Your task to perform on an android device: read, delete, or share a saved page in the chrome app Image 0: 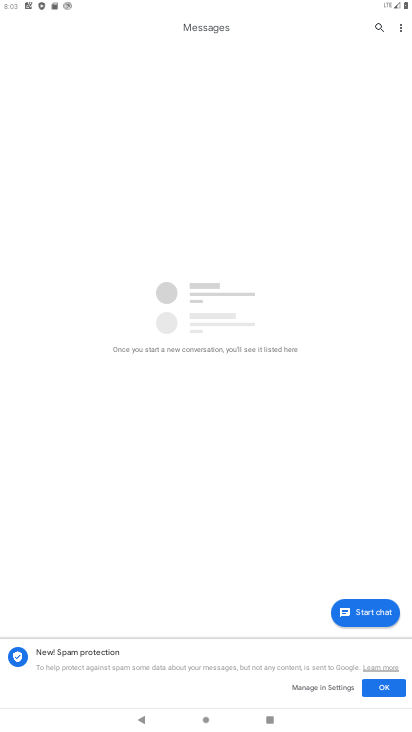
Step 0: press home button
Your task to perform on an android device: read, delete, or share a saved page in the chrome app Image 1: 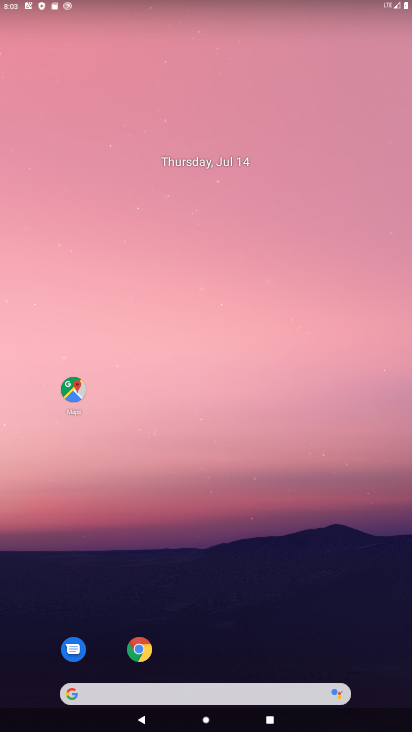
Step 1: drag from (231, 712) to (311, 29)
Your task to perform on an android device: read, delete, or share a saved page in the chrome app Image 2: 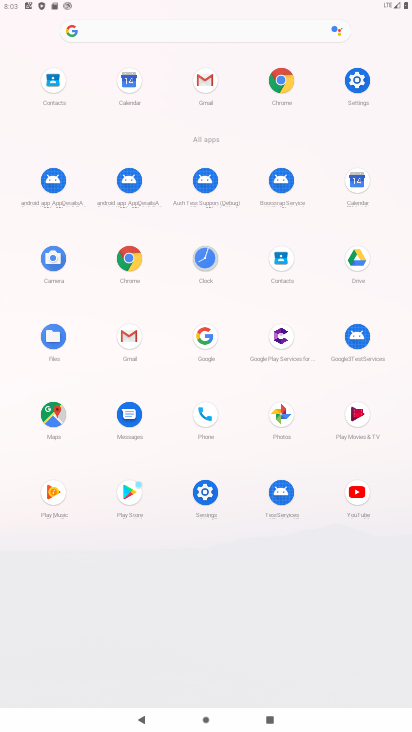
Step 2: click (136, 266)
Your task to perform on an android device: read, delete, or share a saved page in the chrome app Image 3: 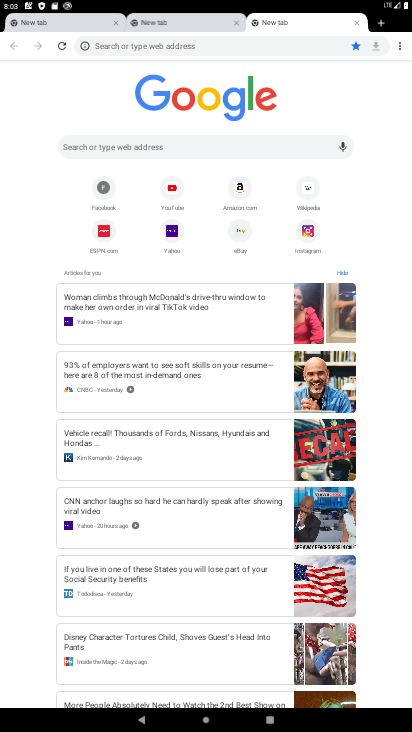
Step 3: click (396, 45)
Your task to perform on an android device: read, delete, or share a saved page in the chrome app Image 4: 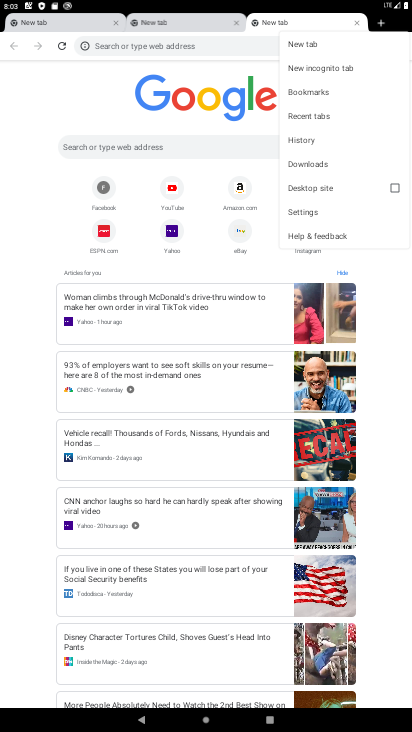
Step 4: click (309, 162)
Your task to perform on an android device: read, delete, or share a saved page in the chrome app Image 5: 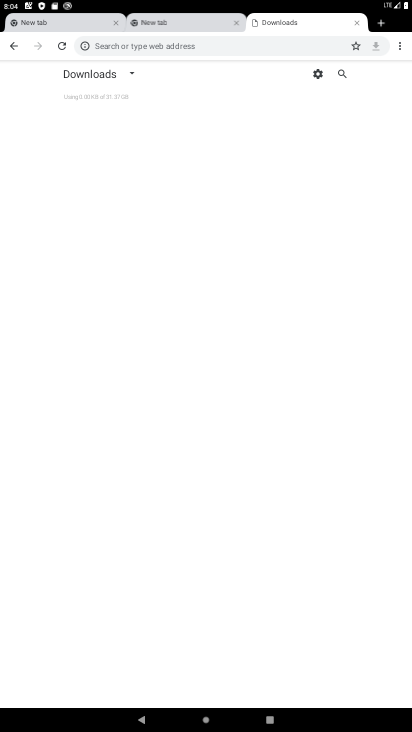
Step 5: task complete